Your task to perform on an android device: Open maps Image 0: 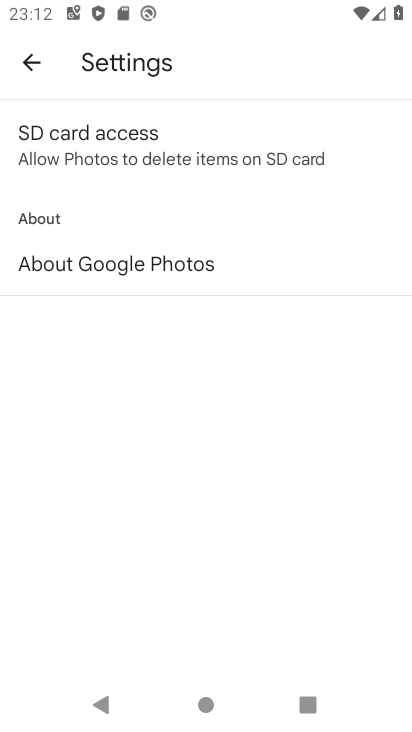
Step 0: press home button
Your task to perform on an android device: Open maps Image 1: 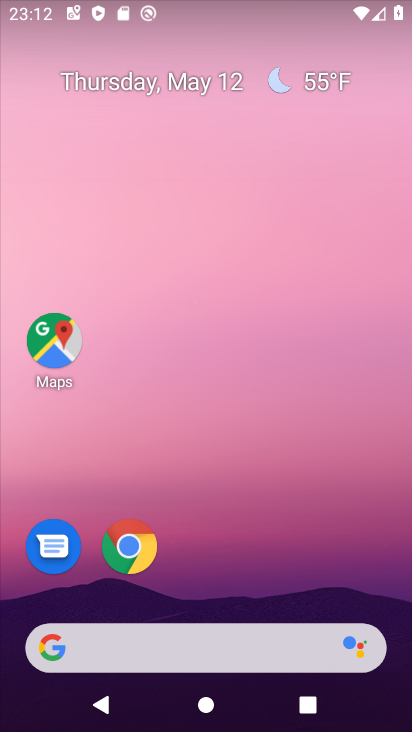
Step 1: drag from (167, 586) to (209, 180)
Your task to perform on an android device: Open maps Image 2: 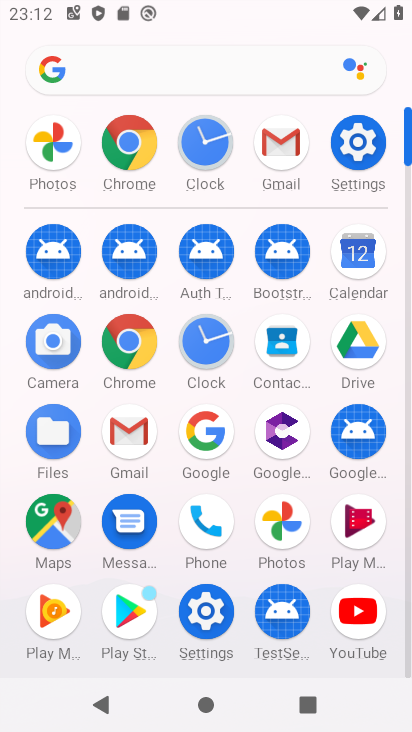
Step 2: click (49, 519)
Your task to perform on an android device: Open maps Image 3: 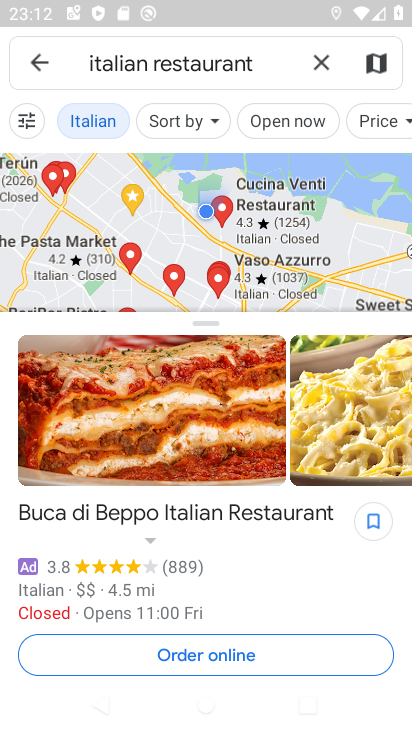
Step 3: task complete